Your task to perform on an android device: Go to Google maps Image 0: 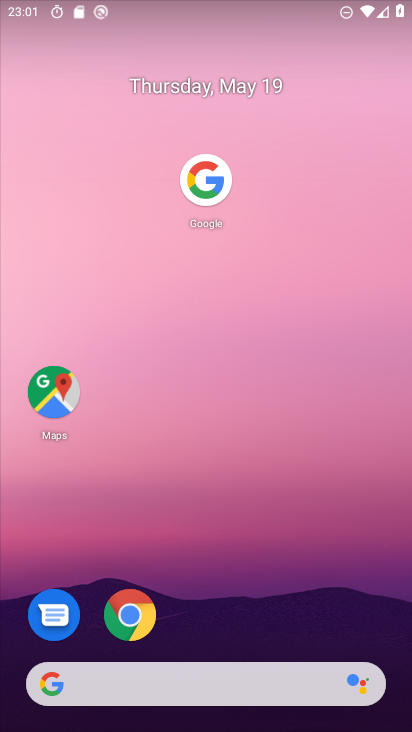
Step 0: click (52, 385)
Your task to perform on an android device: Go to Google maps Image 1: 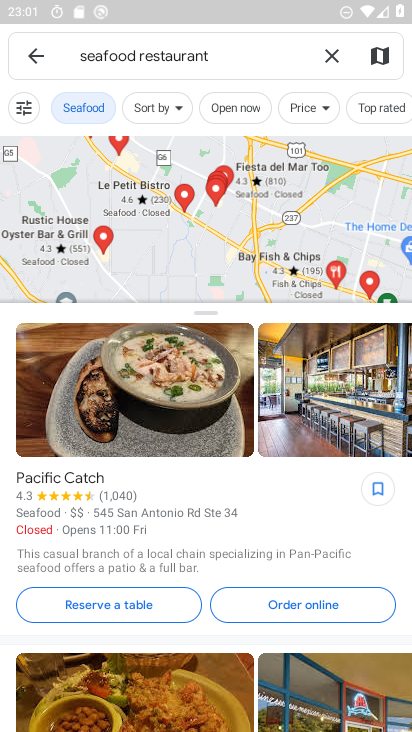
Step 1: task complete